Your task to perform on an android device: open chrome and create a bookmark for the current page Image 0: 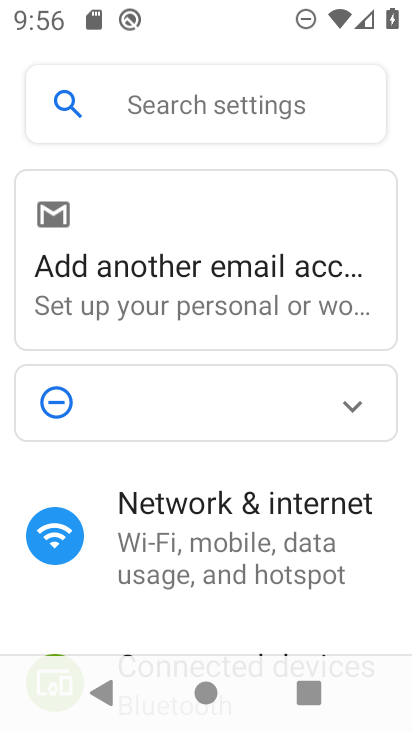
Step 0: press home button
Your task to perform on an android device: open chrome and create a bookmark for the current page Image 1: 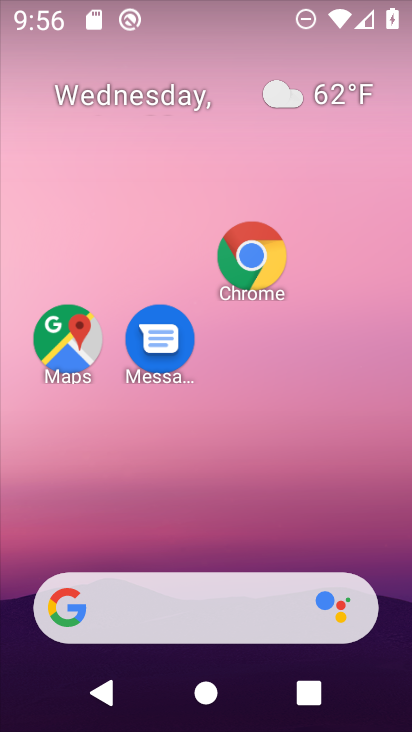
Step 1: click (252, 258)
Your task to perform on an android device: open chrome and create a bookmark for the current page Image 2: 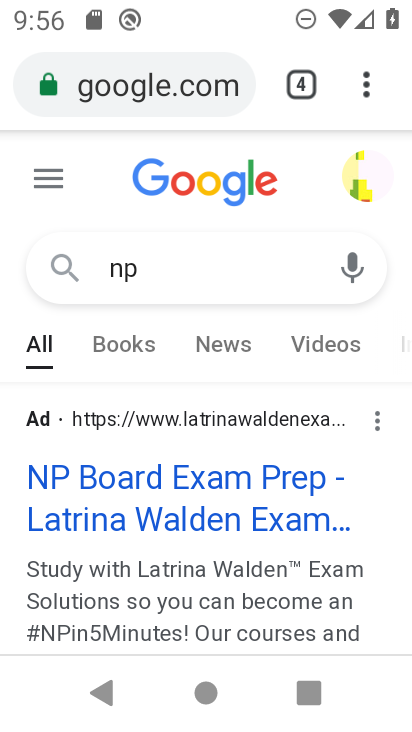
Step 2: click (360, 84)
Your task to perform on an android device: open chrome and create a bookmark for the current page Image 3: 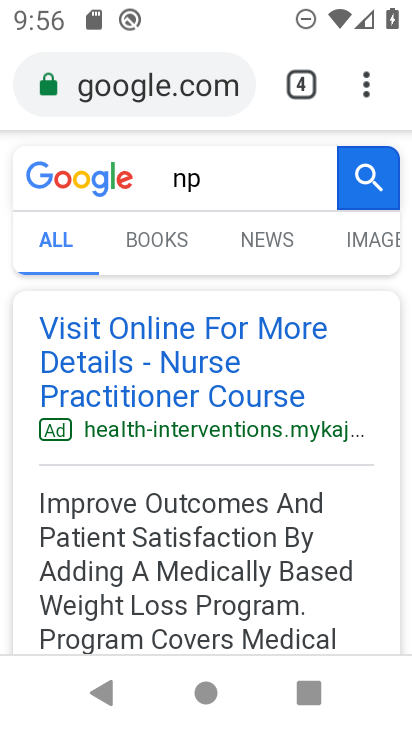
Step 3: click (358, 89)
Your task to perform on an android device: open chrome and create a bookmark for the current page Image 4: 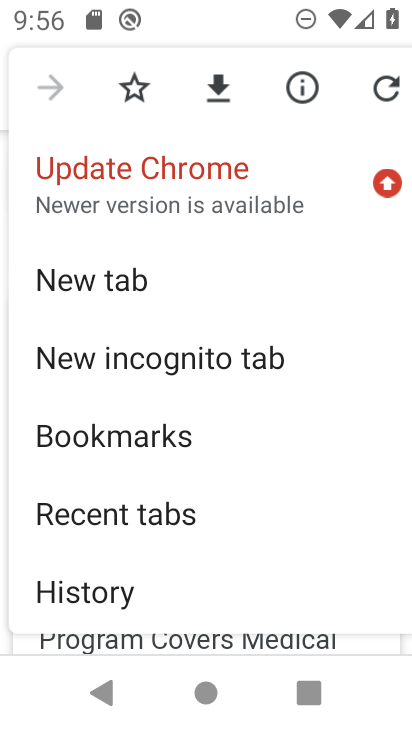
Step 4: click (134, 87)
Your task to perform on an android device: open chrome and create a bookmark for the current page Image 5: 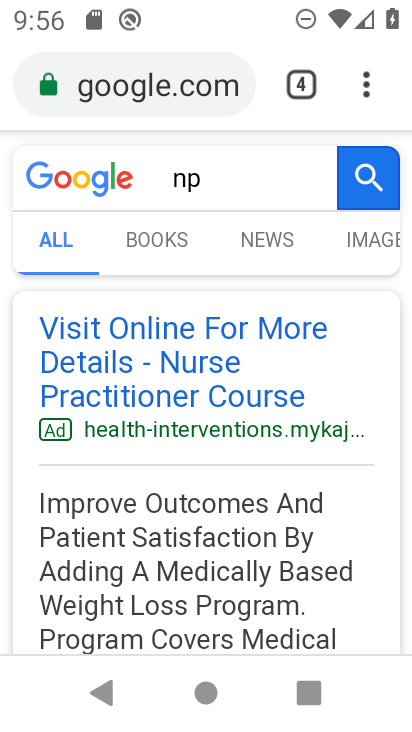
Step 5: task complete